Your task to perform on an android device: Is it going to rain this weekend? Image 0: 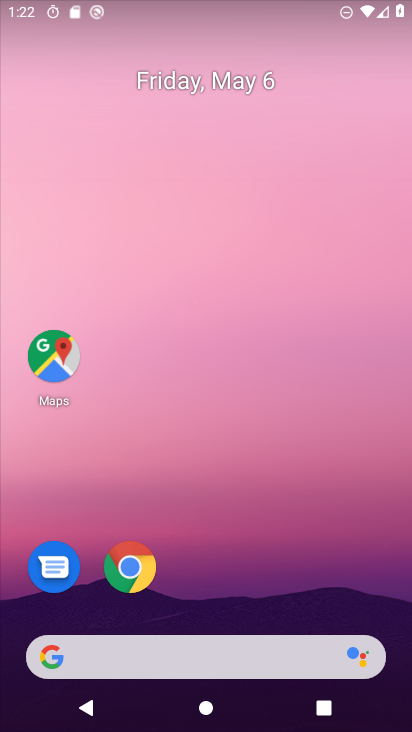
Step 0: click (97, 652)
Your task to perform on an android device: Is it going to rain this weekend? Image 1: 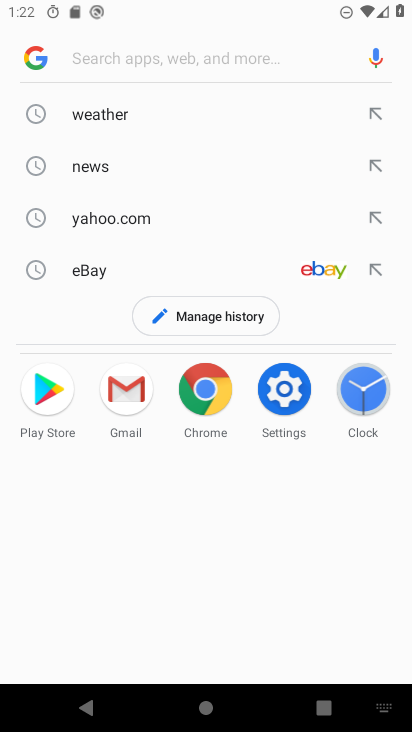
Step 1: click (84, 106)
Your task to perform on an android device: Is it going to rain this weekend? Image 2: 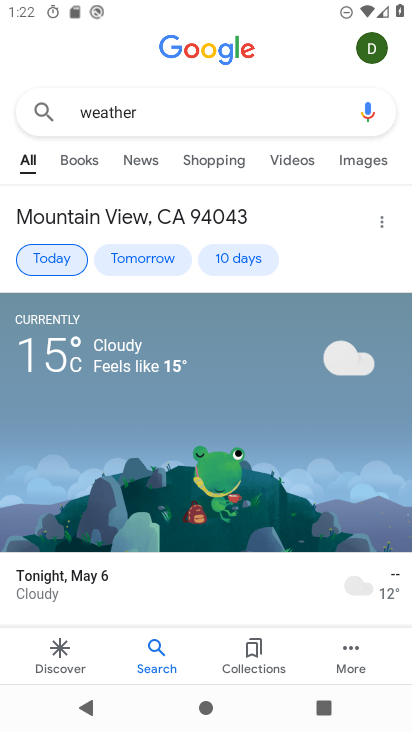
Step 2: click (236, 266)
Your task to perform on an android device: Is it going to rain this weekend? Image 3: 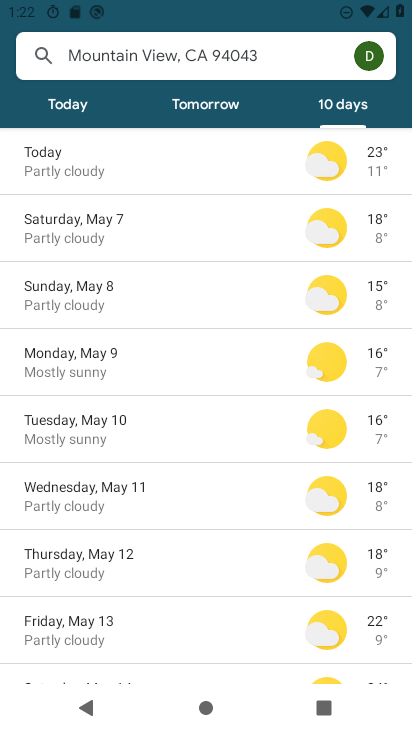
Step 3: task complete